Your task to perform on an android device: change keyboard looks Image 0: 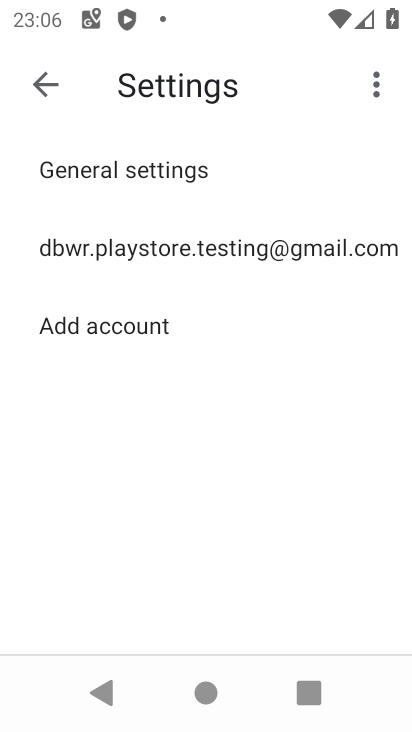
Step 0: press home button
Your task to perform on an android device: change keyboard looks Image 1: 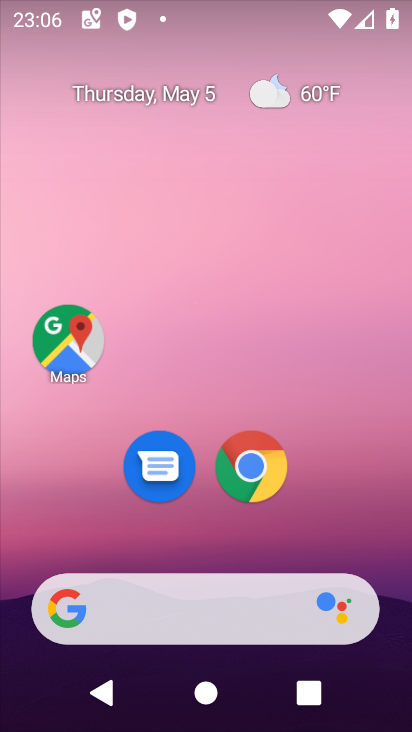
Step 1: drag from (188, 575) to (255, 251)
Your task to perform on an android device: change keyboard looks Image 2: 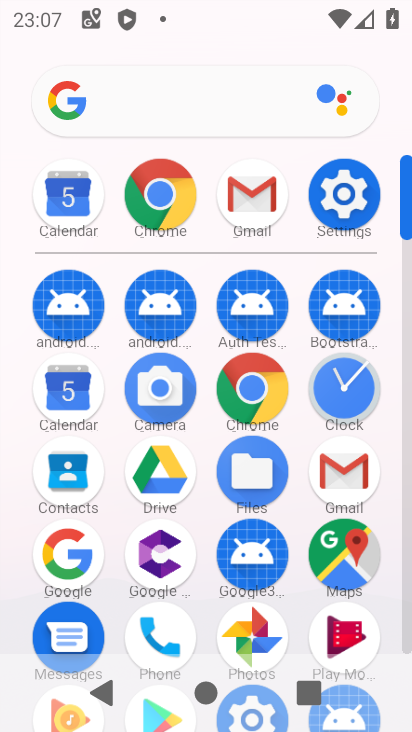
Step 2: click (320, 196)
Your task to perform on an android device: change keyboard looks Image 3: 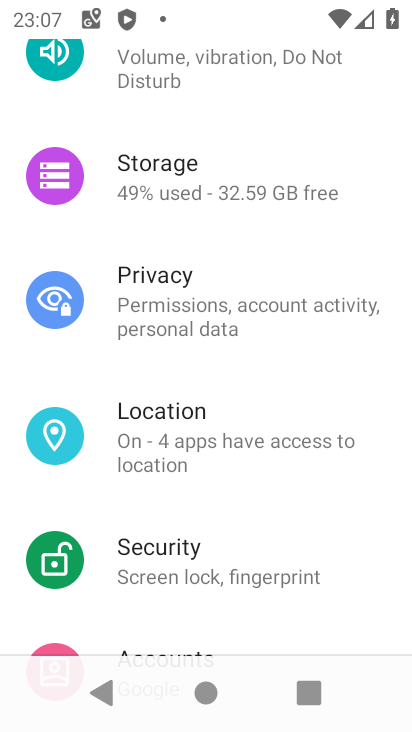
Step 3: drag from (233, 636) to (276, 323)
Your task to perform on an android device: change keyboard looks Image 4: 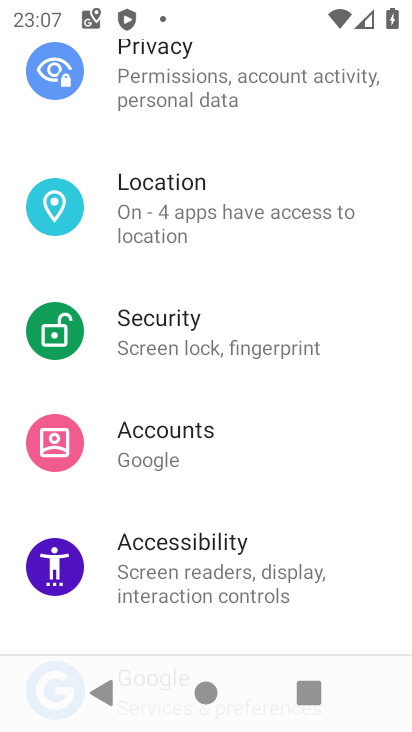
Step 4: drag from (190, 600) to (279, 252)
Your task to perform on an android device: change keyboard looks Image 5: 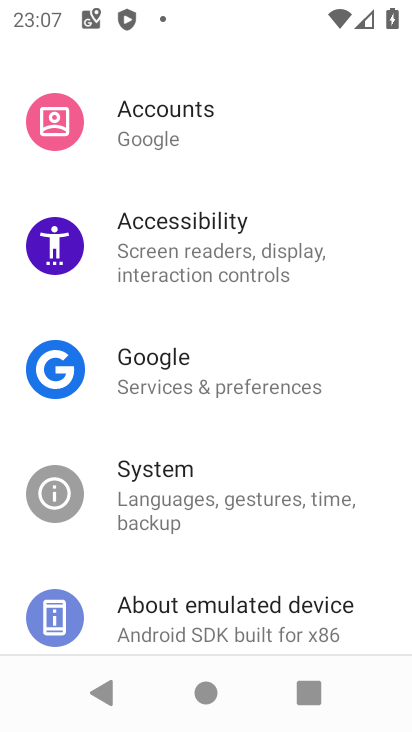
Step 5: click (177, 494)
Your task to perform on an android device: change keyboard looks Image 6: 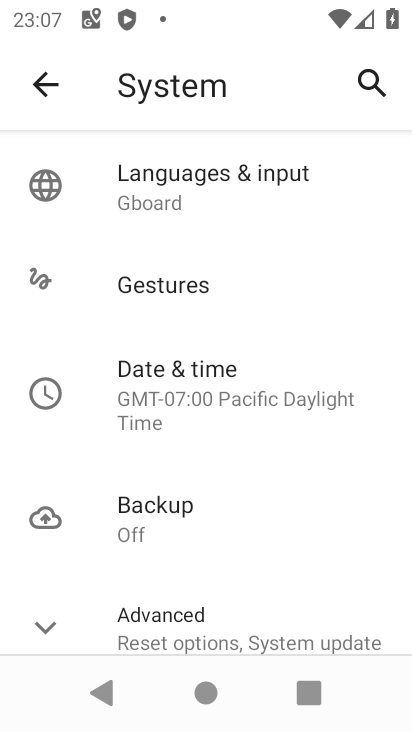
Step 6: click (164, 184)
Your task to perform on an android device: change keyboard looks Image 7: 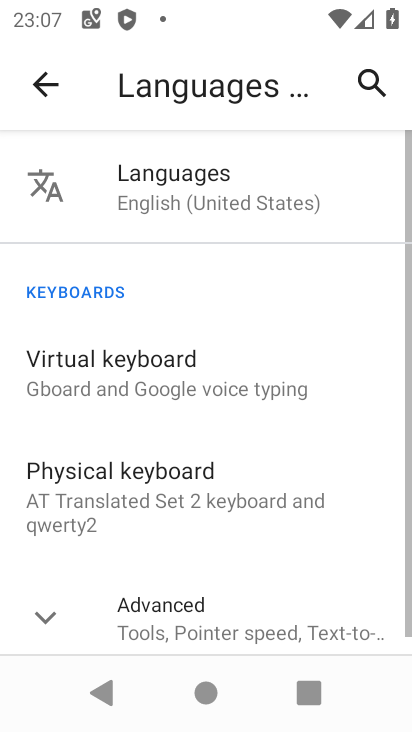
Step 7: click (119, 375)
Your task to perform on an android device: change keyboard looks Image 8: 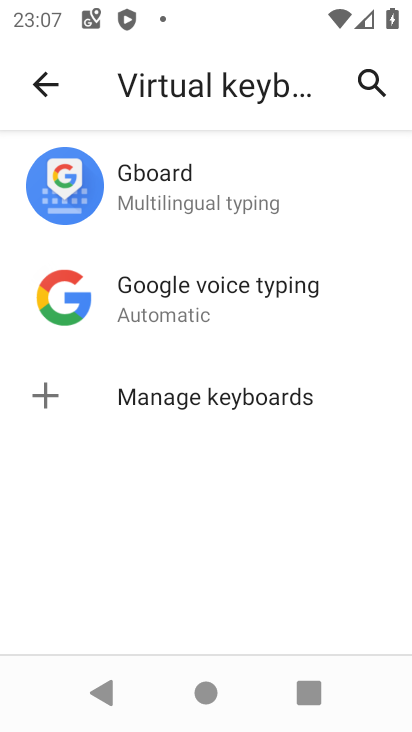
Step 8: click (116, 197)
Your task to perform on an android device: change keyboard looks Image 9: 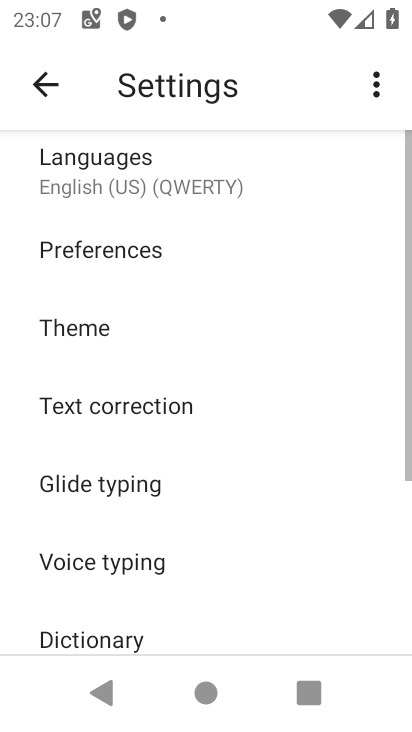
Step 9: click (92, 345)
Your task to perform on an android device: change keyboard looks Image 10: 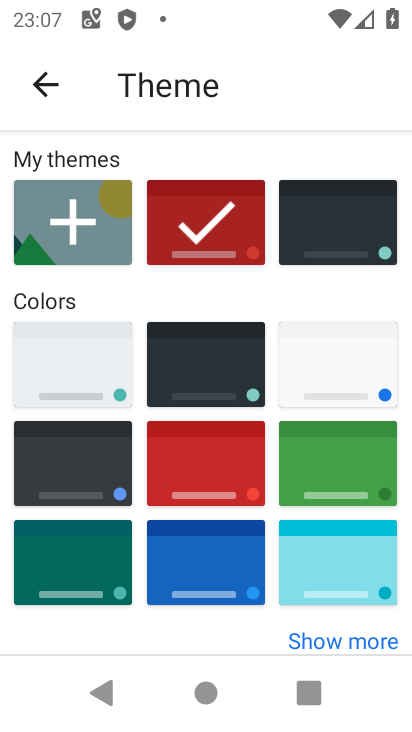
Step 10: click (364, 470)
Your task to perform on an android device: change keyboard looks Image 11: 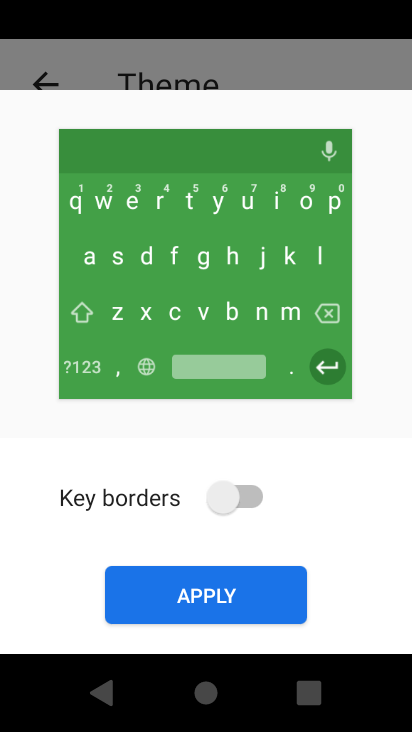
Step 11: click (236, 590)
Your task to perform on an android device: change keyboard looks Image 12: 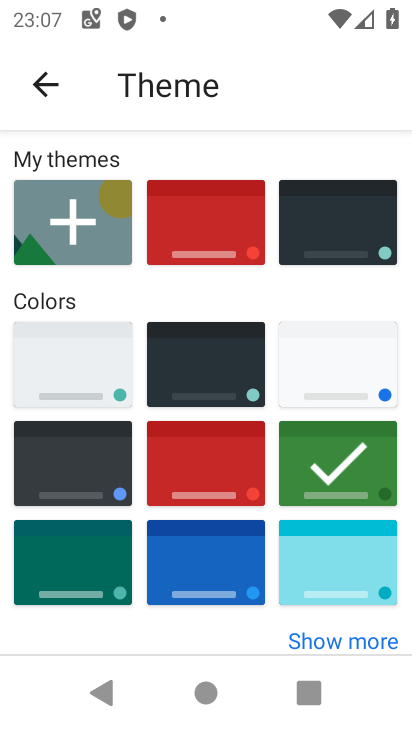
Step 12: task complete